Your task to perform on an android device: What's the weather today? Image 0: 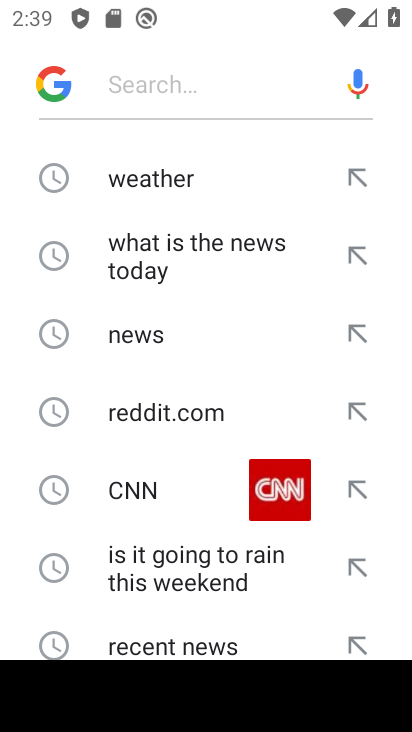
Step 0: press back button
Your task to perform on an android device: What's the weather today? Image 1: 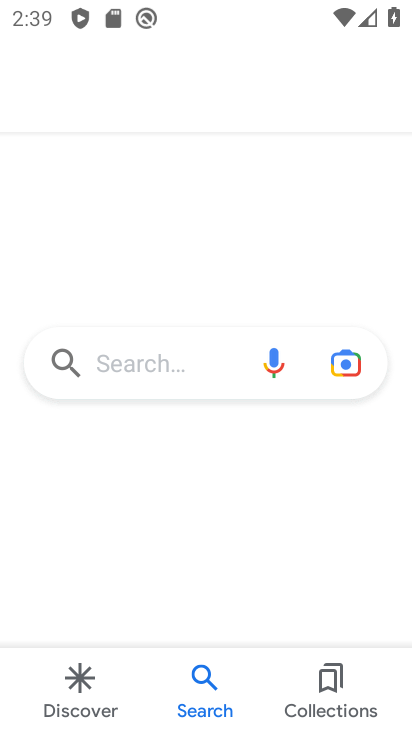
Step 1: press back button
Your task to perform on an android device: What's the weather today? Image 2: 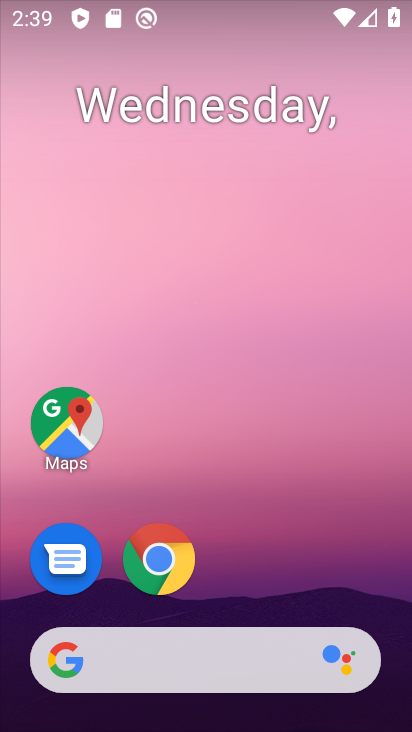
Step 2: click (170, 662)
Your task to perform on an android device: What's the weather today? Image 3: 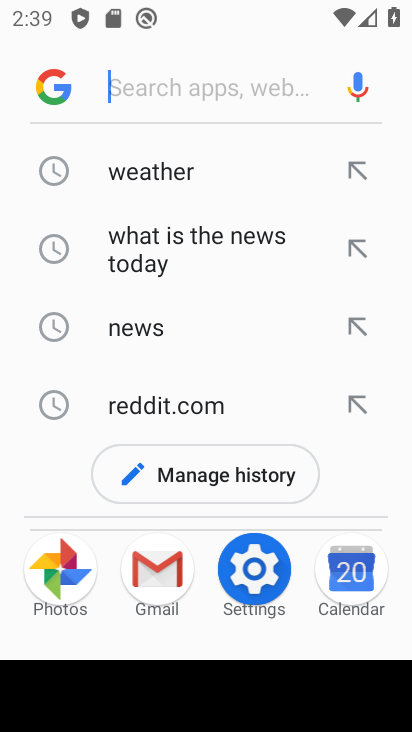
Step 3: click (154, 167)
Your task to perform on an android device: What's the weather today? Image 4: 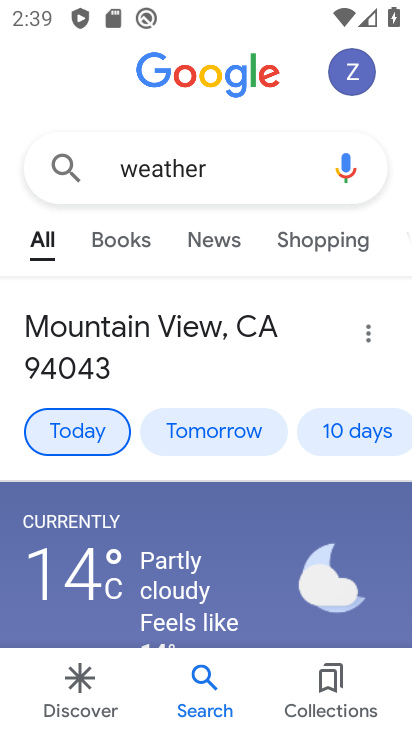
Step 4: click (70, 446)
Your task to perform on an android device: What's the weather today? Image 5: 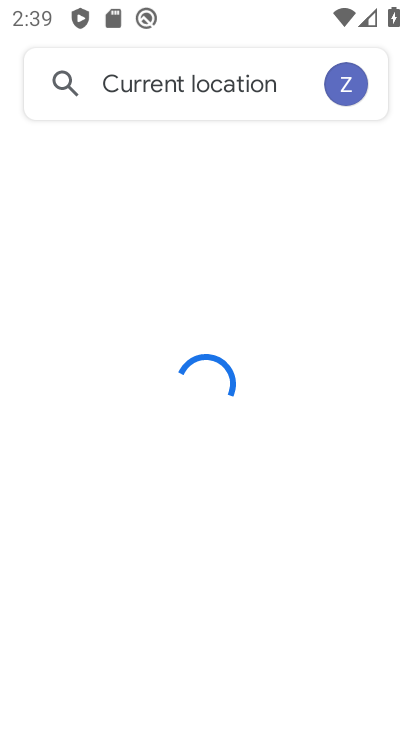
Step 5: task complete